Your task to perform on an android device: Go to internet settings Image 0: 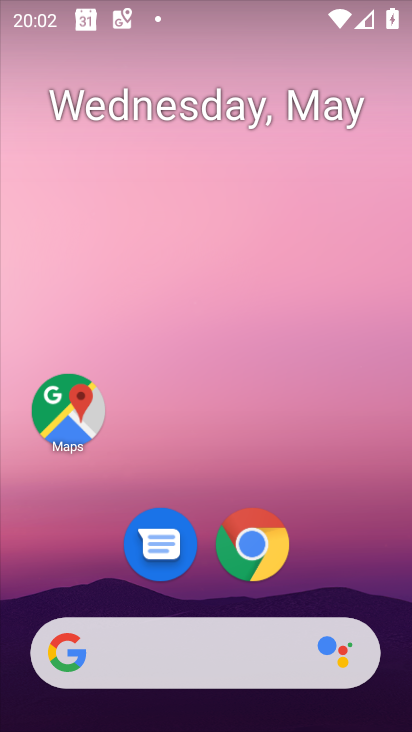
Step 0: drag from (221, 8) to (220, 612)
Your task to perform on an android device: Go to internet settings Image 1: 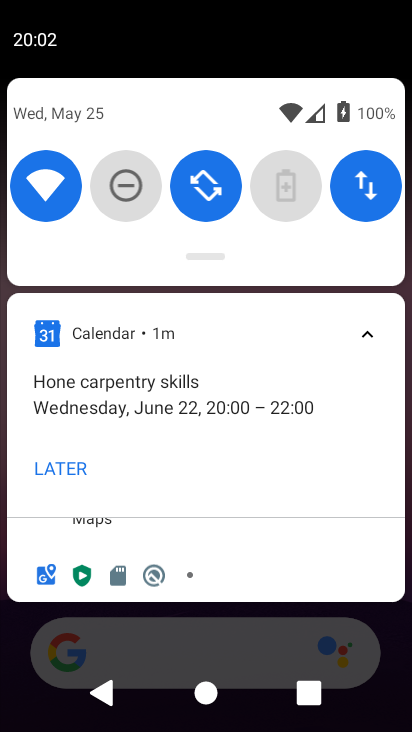
Step 1: click (356, 201)
Your task to perform on an android device: Go to internet settings Image 2: 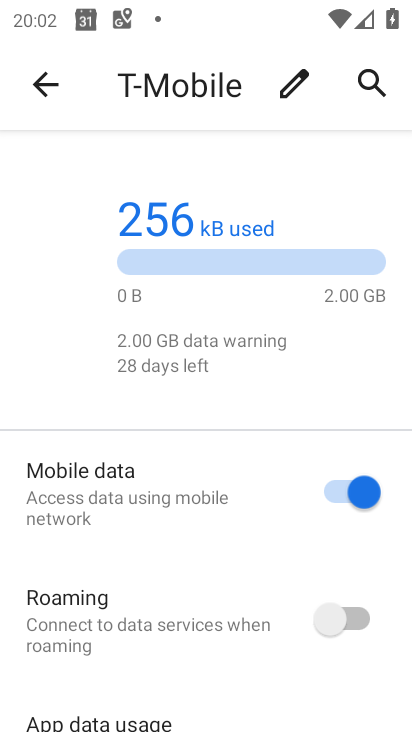
Step 2: task complete